Your task to perform on an android device: toggle location history Image 0: 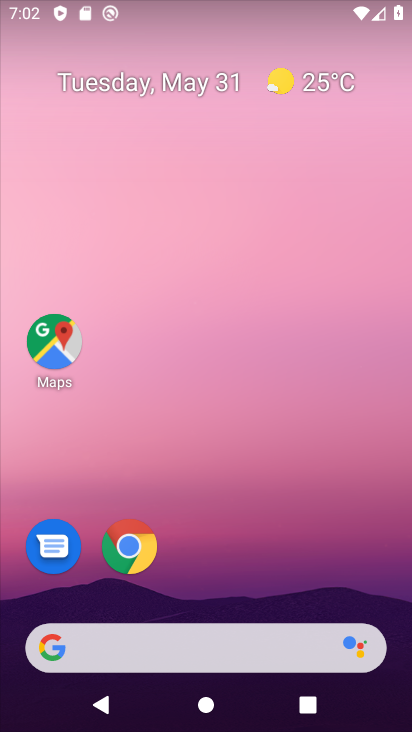
Step 0: press home button
Your task to perform on an android device: toggle location history Image 1: 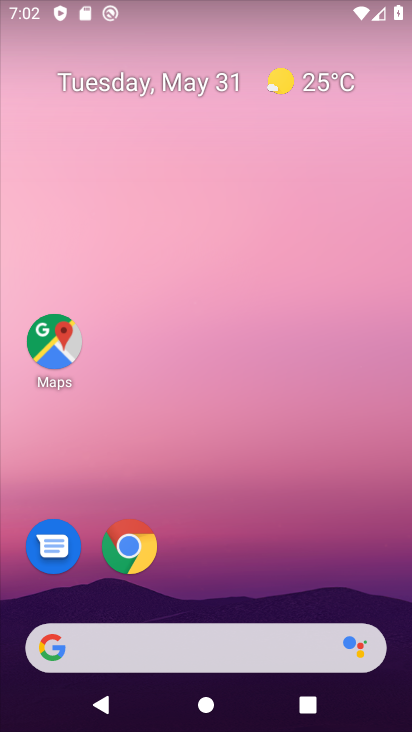
Step 1: drag from (209, 626) to (196, 277)
Your task to perform on an android device: toggle location history Image 2: 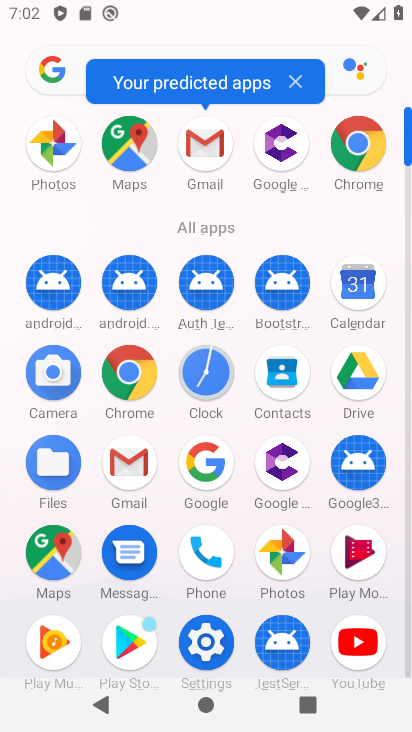
Step 2: click (202, 634)
Your task to perform on an android device: toggle location history Image 3: 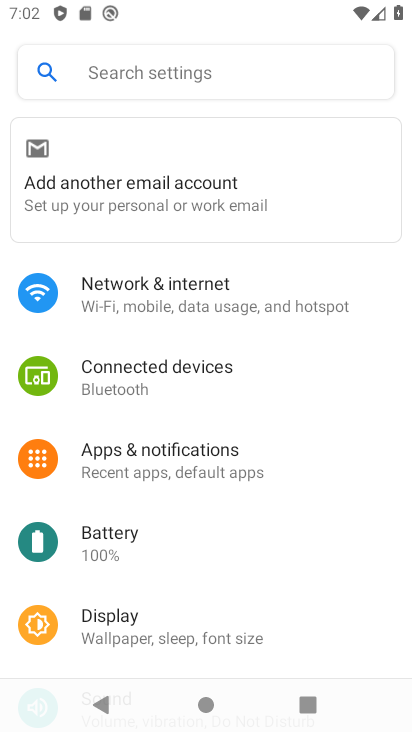
Step 3: click (145, 69)
Your task to perform on an android device: toggle location history Image 4: 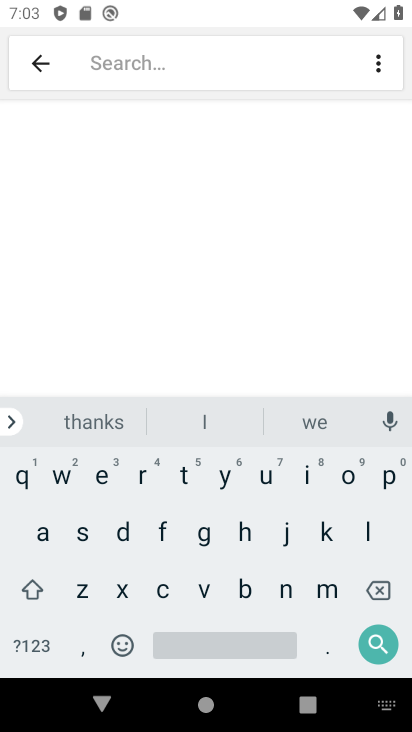
Step 4: click (370, 528)
Your task to perform on an android device: toggle location history Image 5: 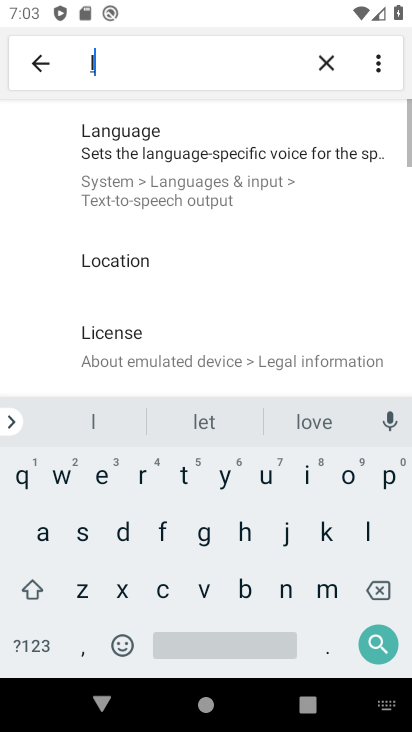
Step 5: click (348, 476)
Your task to perform on an android device: toggle location history Image 6: 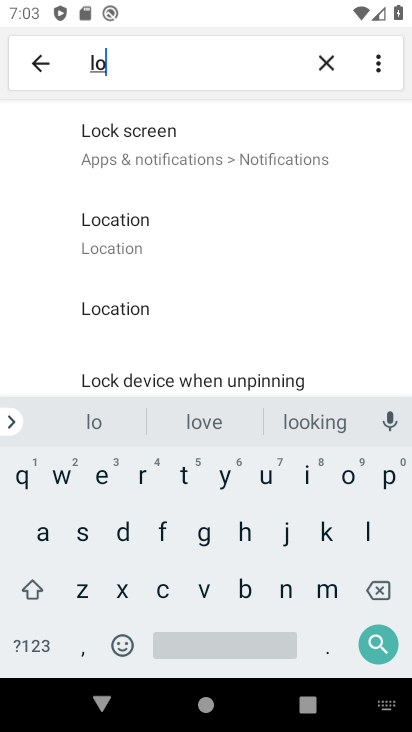
Step 6: click (135, 220)
Your task to perform on an android device: toggle location history Image 7: 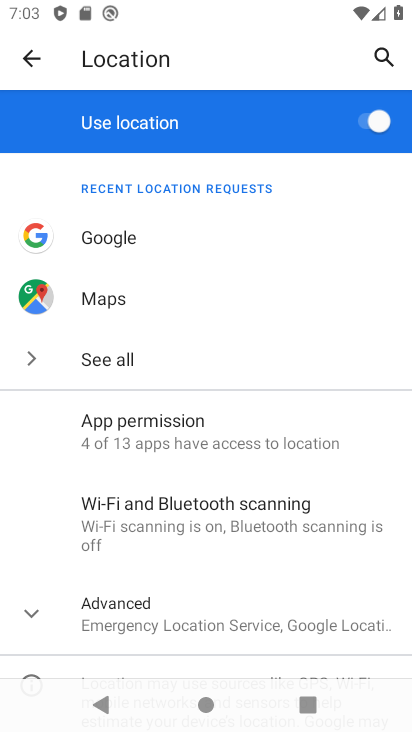
Step 7: click (107, 598)
Your task to perform on an android device: toggle location history Image 8: 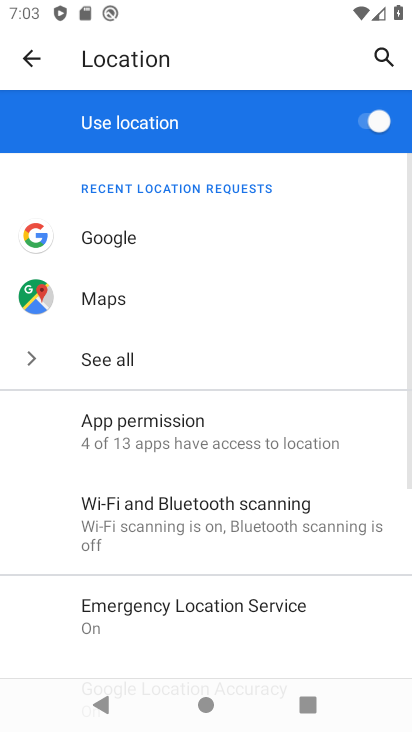
Step 8: drag from (137, 611) to (159, 296)
Your task to perform on an android device: toggle location history Image 9: 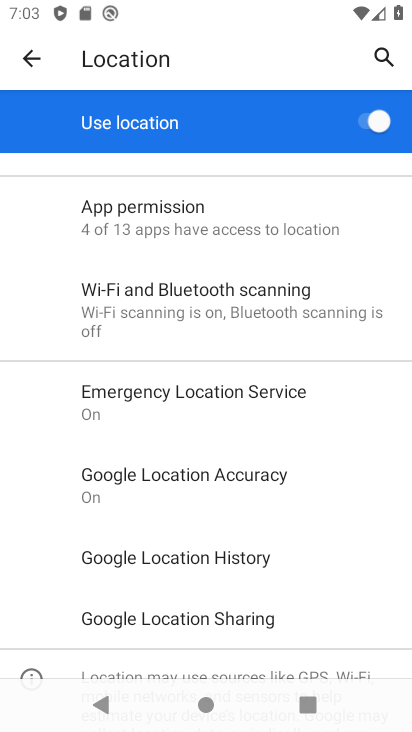
Step 9: click (107, 560)
Your task to perform on an android device: toggle location history Image 10: 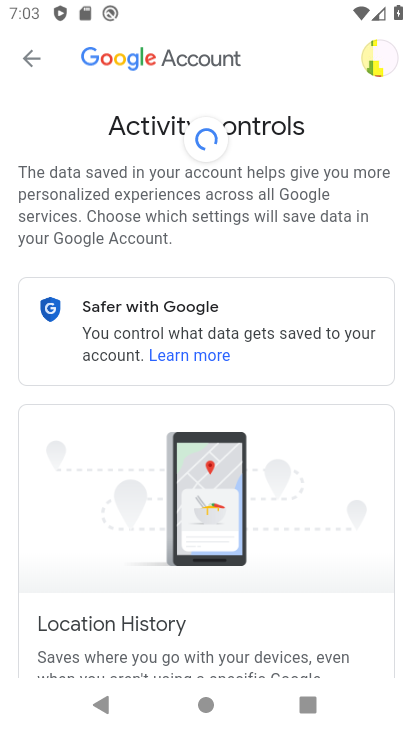
Step 10: task complete